Your task to perform on an android device: Go to Wikipedia Image 0: 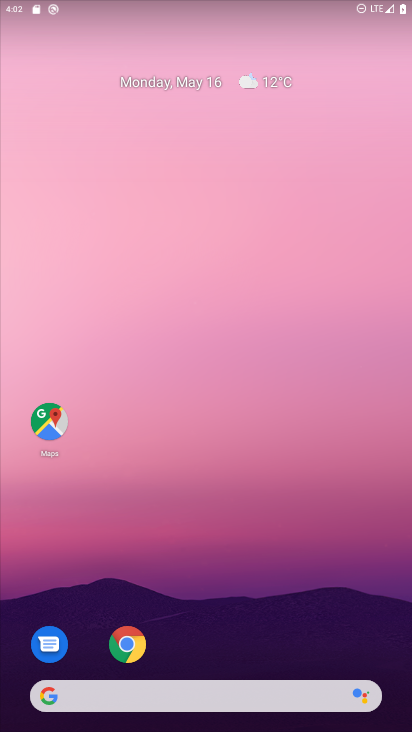
Step 0: click (131, 635)
Your task to perform on an android device: Go to Wikipedia Image 1: 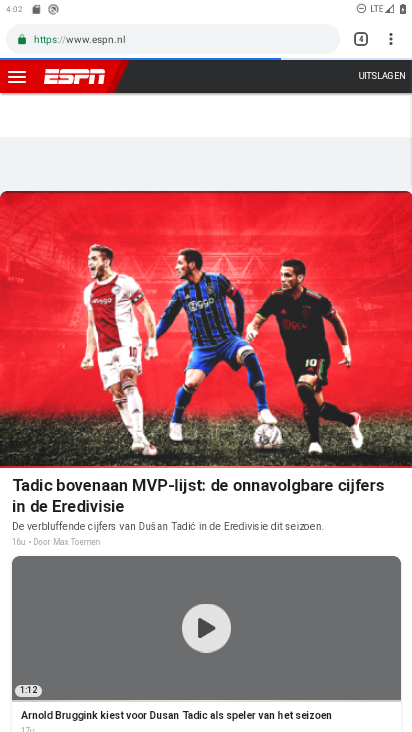
Step 1: click (351, 32)
Your task to perform on an android device: Go to Wikipedia Image 2: 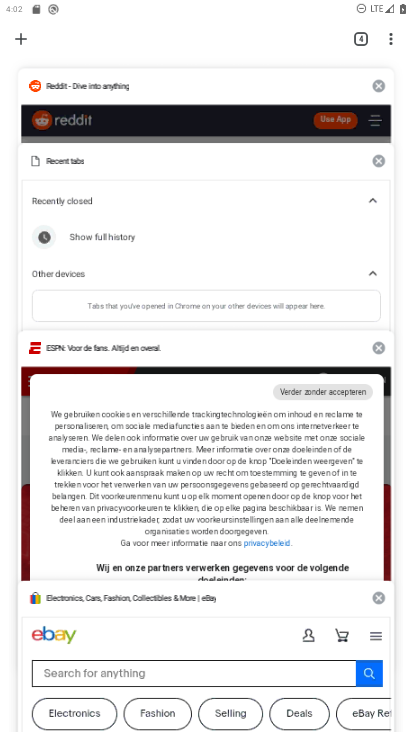
Step 2: click (13, 36)
Your task to perform on an android device: Go to Wikipedia Image 3: 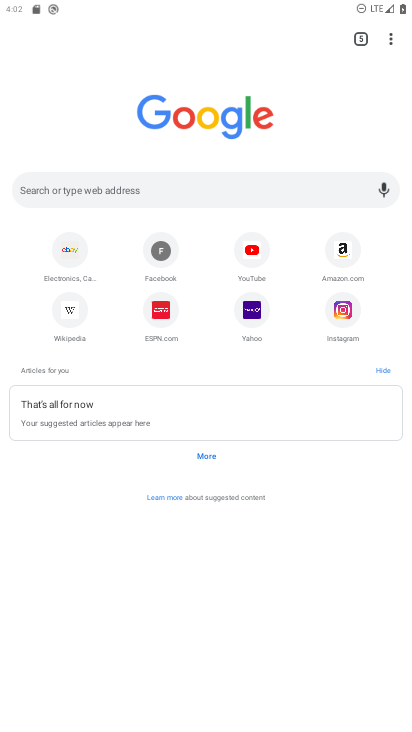
Step 3: click (66, 301)
Your task to perform on an android device: Go to Wikipedia Image 4: 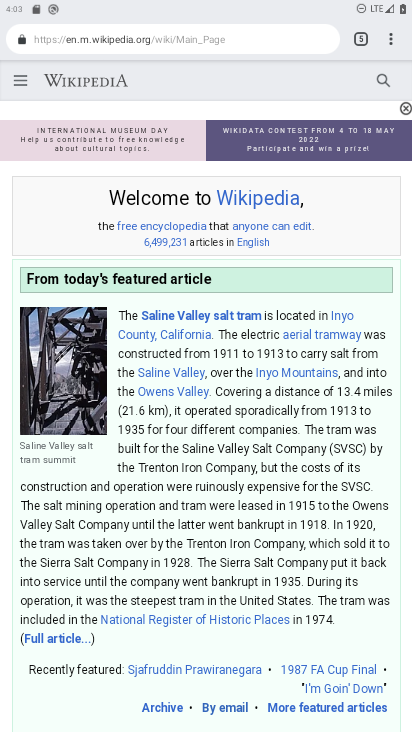
Step 4: task complete